Your task to perform on an android device: Search for Mexican restaurants on Maps Image 0: 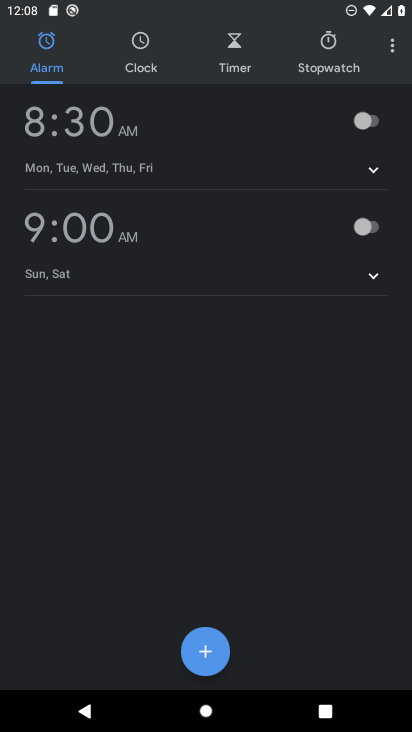
Step 0: press home button
Your task to perform on an android device: Search for Mexican restaurants on Maps Image 1: 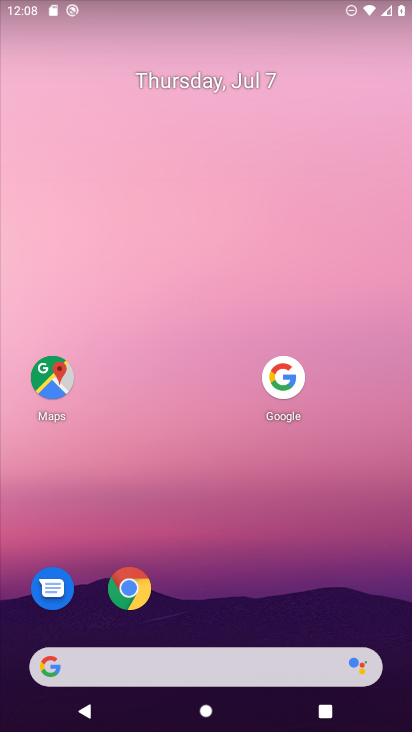
Step 1: click (61, 392)
Your task to perform on an android device: Search for Mexican restaurants on Maps Image 2: 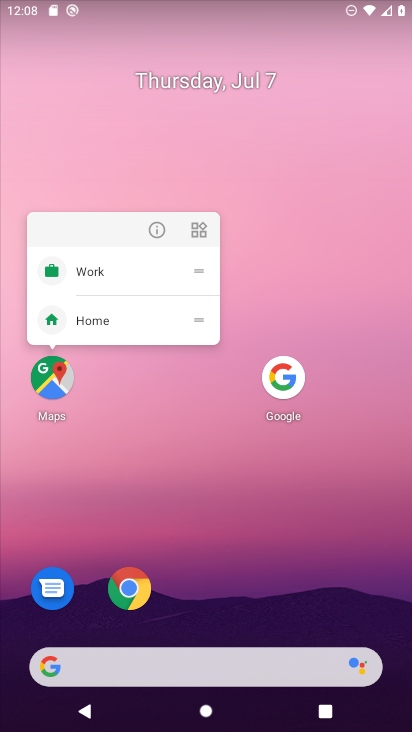
Step 2: click (45, 377)
Your task to perform on an android device: Search for Mexican restaurants on Maps Image 3: 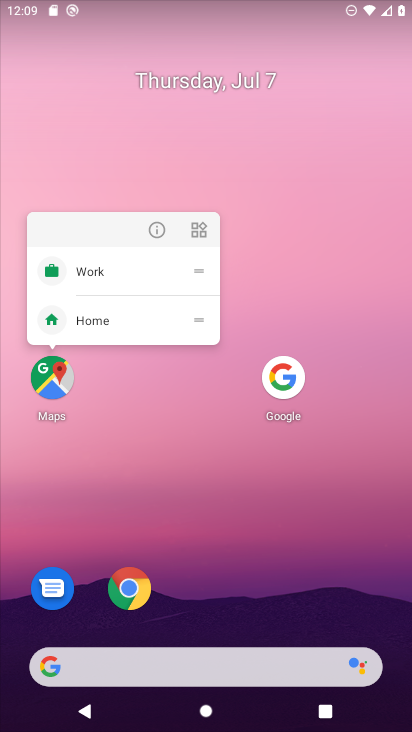
Step 3: click (51, 384)
Your task to perform on an android device: Search for Mexican restaurants on Maps Image 4: 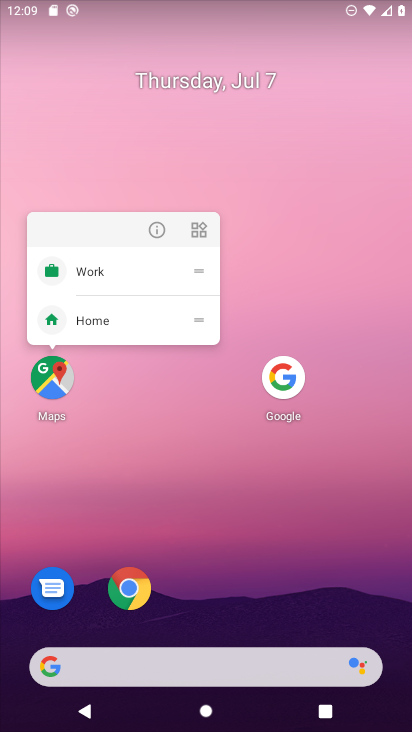
Step 4: click (51, 384)
Your task to perform on an android device: Search for Mexican restaurants on Maps Image 5: 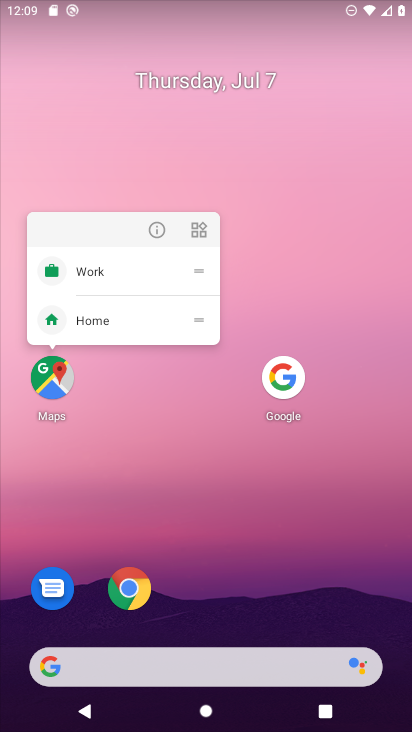
Step 5: click (51, 384)
Your task to perform on an android device: Search for Mexican restaurants on Maps Image 6: 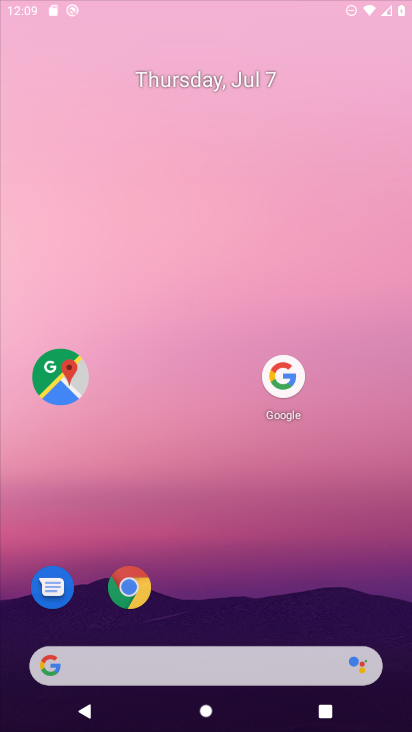
Step 6: click (51, 384)
Your task to perform on an android device: Search for Mexican restaurants on Maps Image 7: 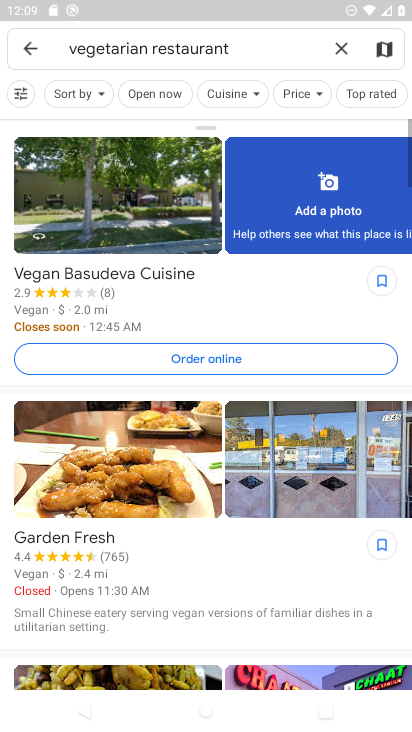
Step 7: click (341, 43)
Your task to perform on an android device: Search for Mexican restaurants on Maps Image 8: 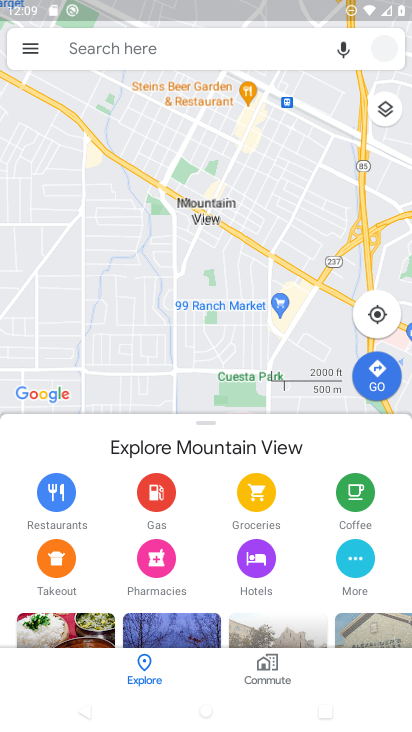
Step 8: click (201, 49)
Your task to perform on an android device: Search for Mexican restaurants on Maps Image 9: 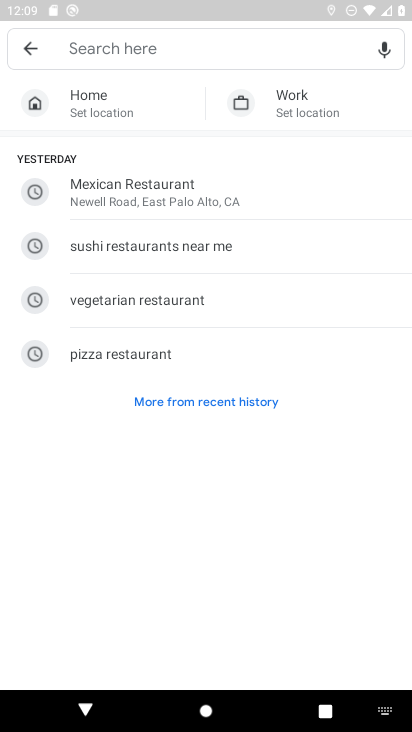
Step 9: click (131, 192)
Your task to perform on an android device: Search for Mexican restaurants on Maps Image 10: 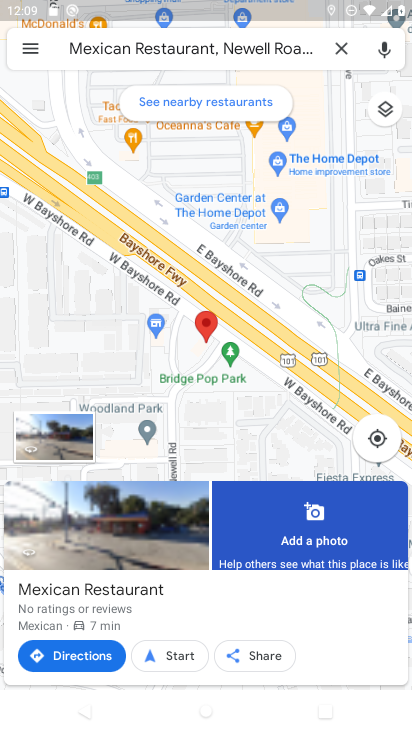
Step 10: task complete